Your task to perform on an android device: turn pop-ups off in chrome Image 0: 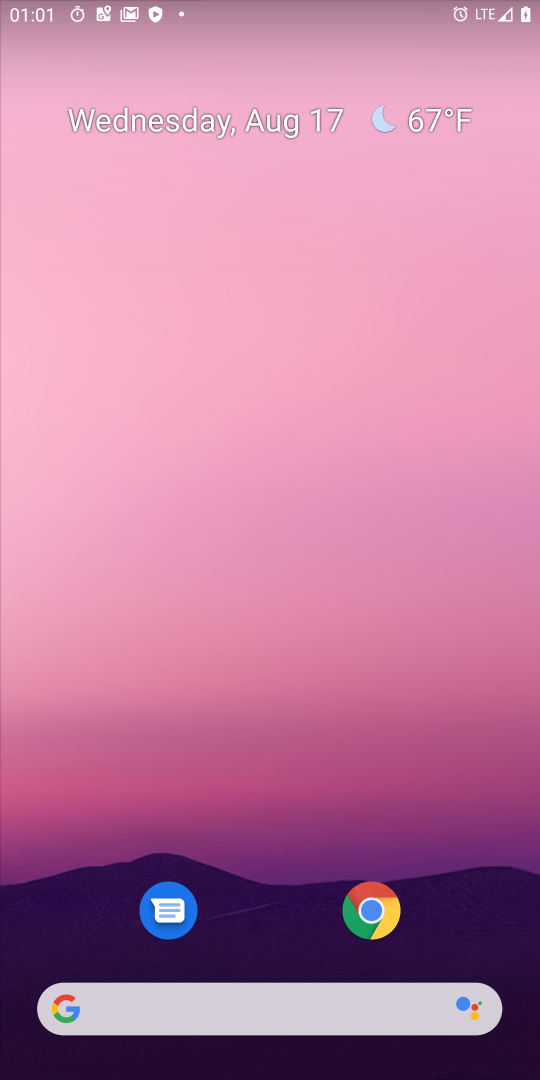
Step 0: drag from (265, 879) to (231, 2)
Your task to perform on an android device: turn pop-ups off in chrome Image 1: 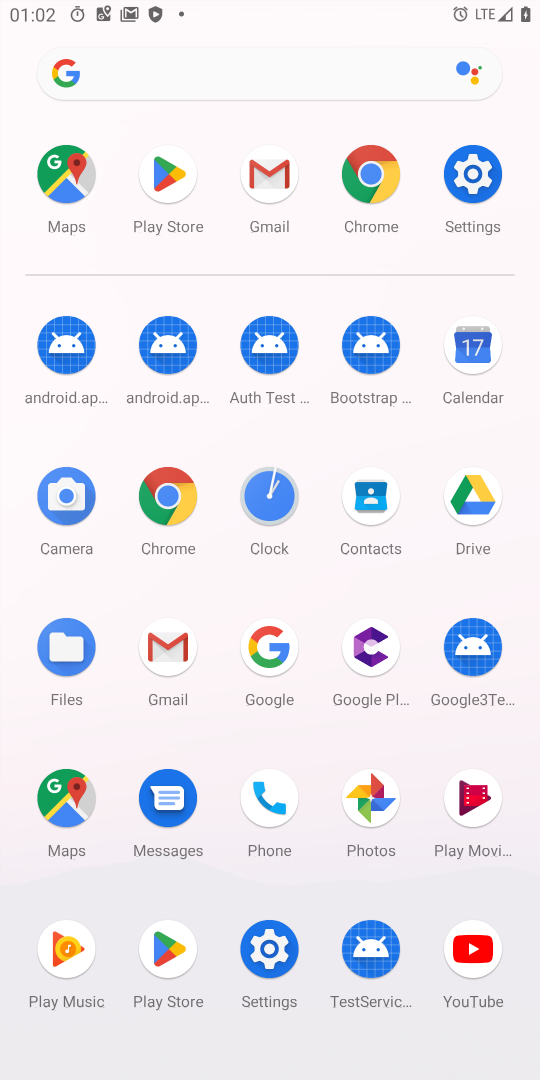
Step 1: click (158, 506)
Your task to perform on an android device: turn pop-ups off in chrome Image 2: 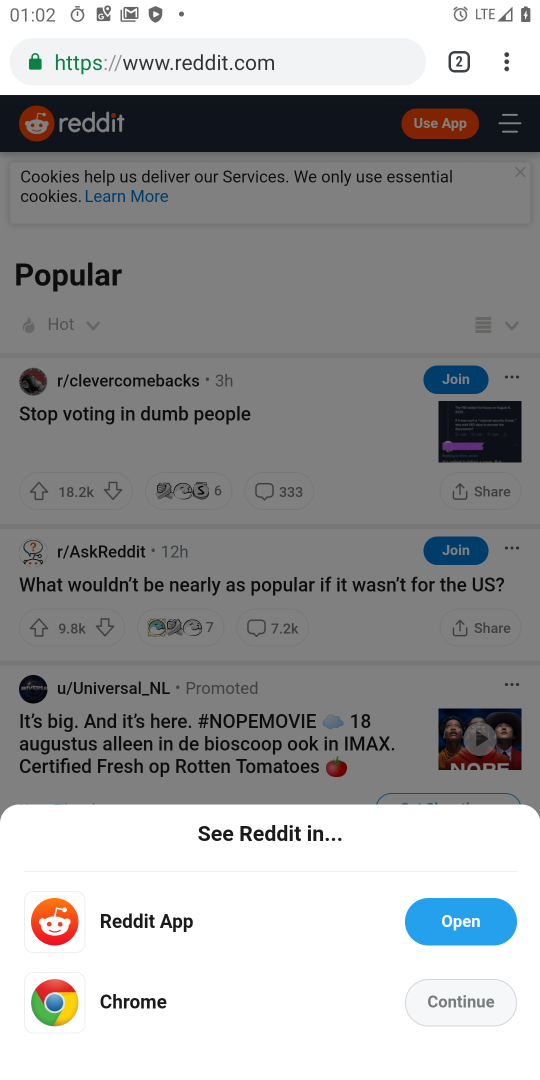
Step 2: drag from (517, 58) to (328, 831)
Your task to perform on an android device: turn pop-ups off in chrome Image 3: 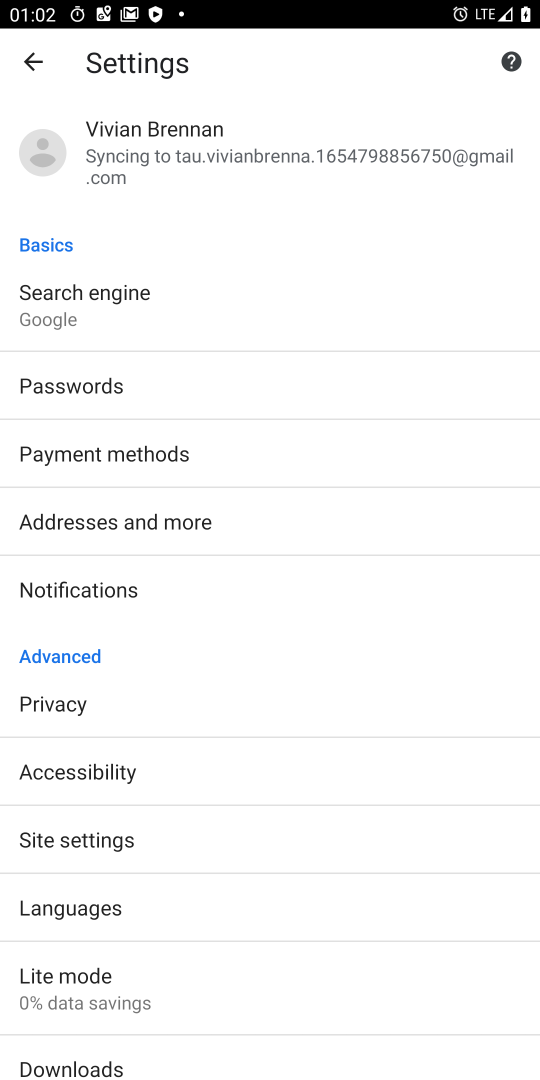
Step 3: click (86, 842)
Your task to perform on an android device: turn pop-ups off in chrome Image 4: 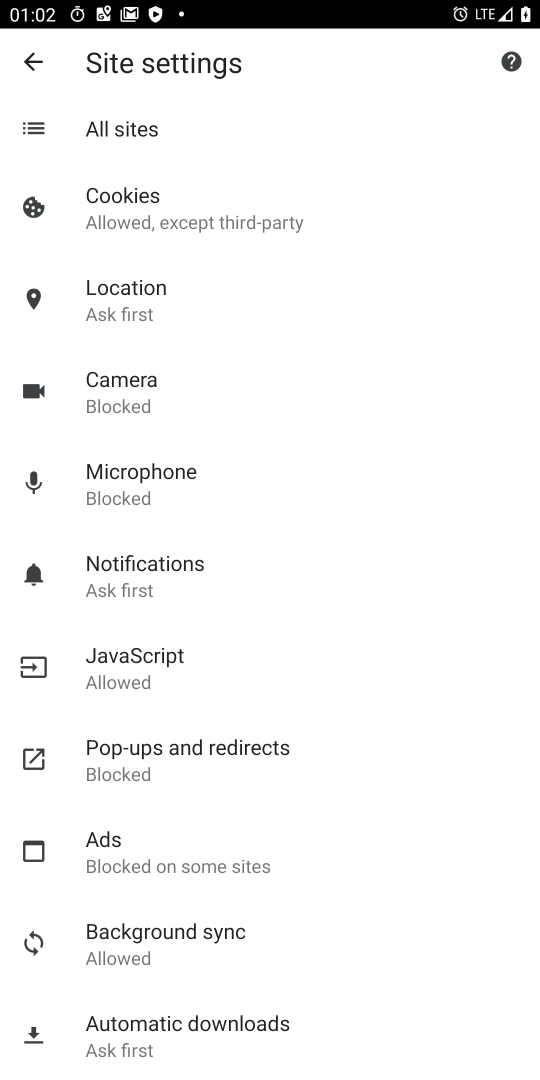
Step 4: click (121, 762)
Your task to perform on an android device: turn pop-ups off in chrome Image 5: 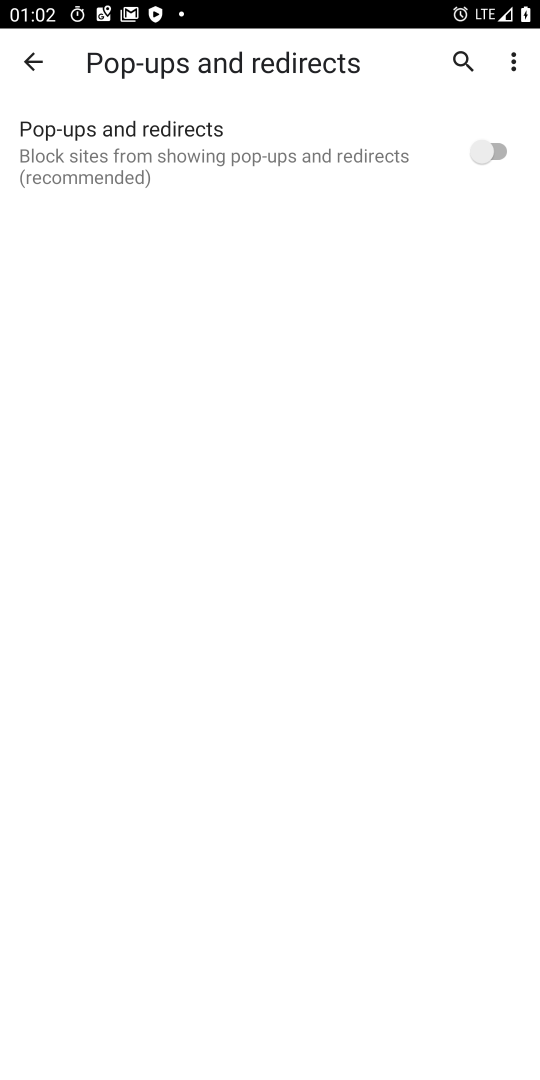
Step 5: task complete